Your task to perform on an android device: toggle sleep mode Image 0: 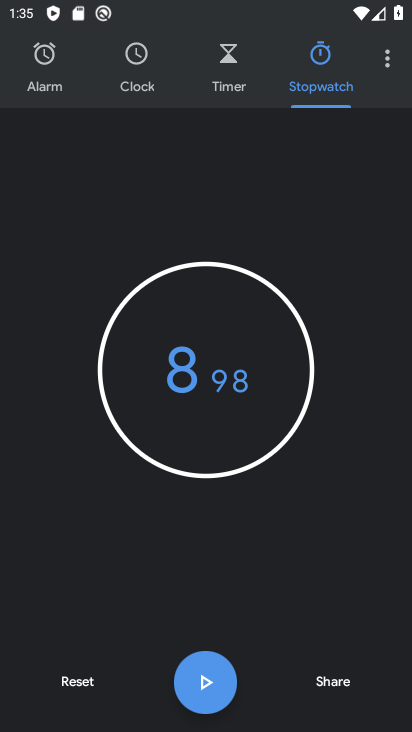
Step 0: press home button
Your task to perform on an android device: toggle sleep mode Image 1: 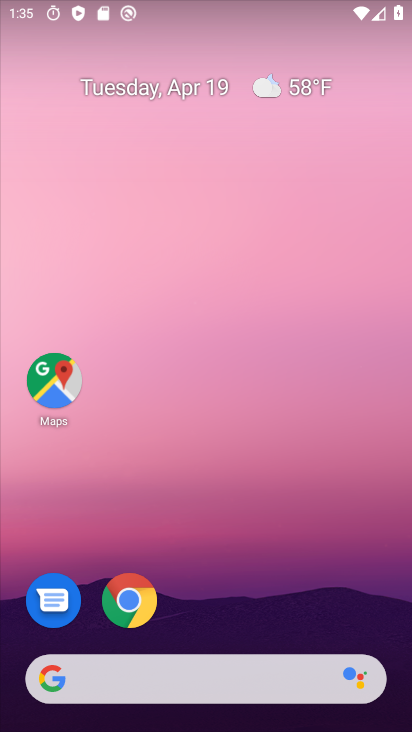
Step 1: drag from (233, 720) to (380, 219)
Your task to perform on an android device: toggle sleep mode Image 2: 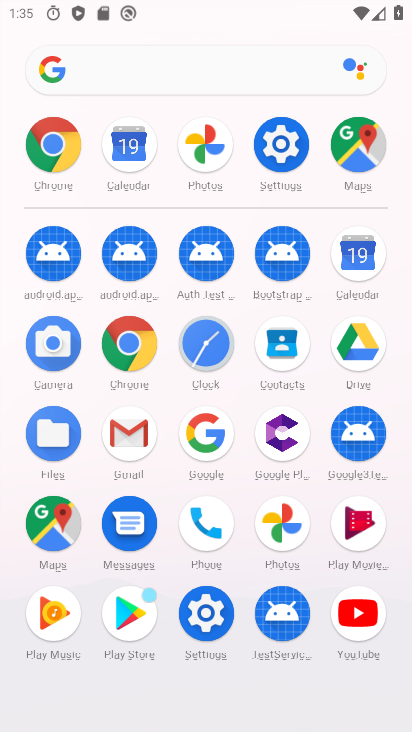
Step 2: click (279, 161)
Your task to perform on an android device: toggle sleep mode Image 3: 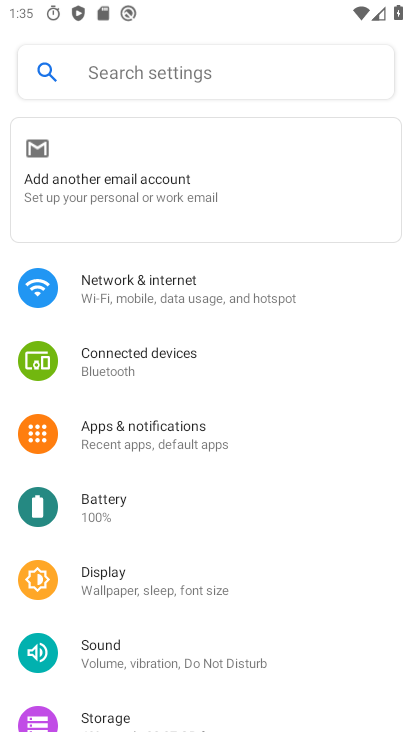
Step 3: click (185, 79)
Your task to perform on an android device: toggle sleep mode Image 4: 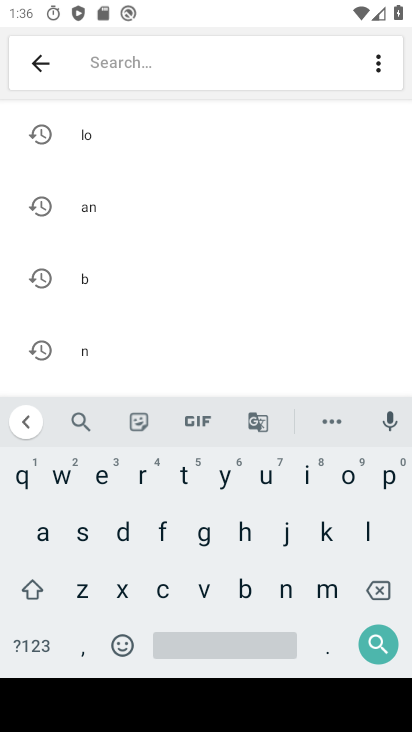
Step 4: click (82, 544)
Your task to perform on an android device: toggle sleep mode Image 5: 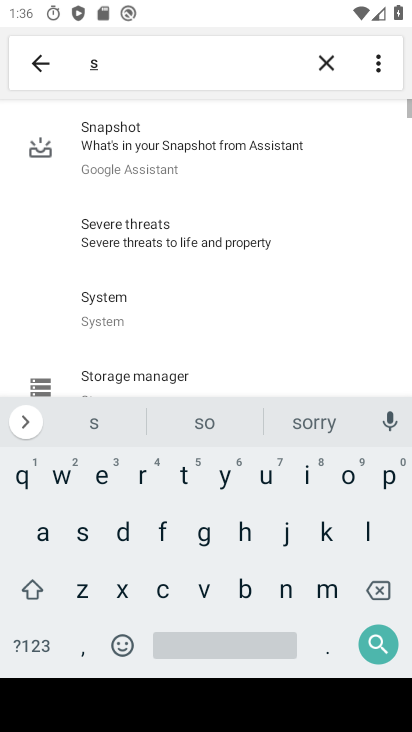
Step 5: click (363, 540)
Your task to perform on an android device: toggle sleep mode Image 6: 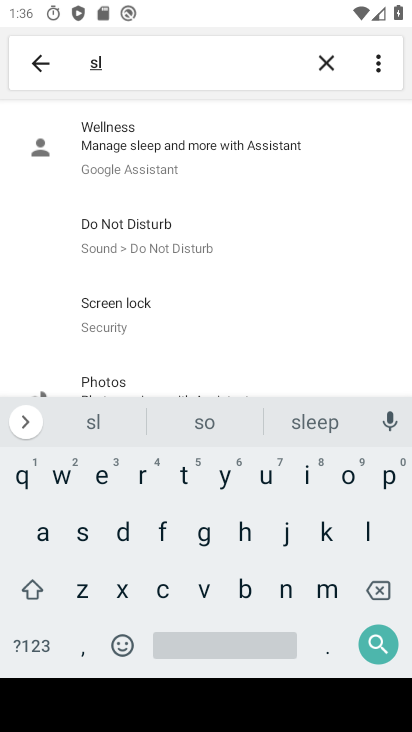
Step 6: click (156, 169)
Your task to perform on an android device: toggle sleep mode Image 7: 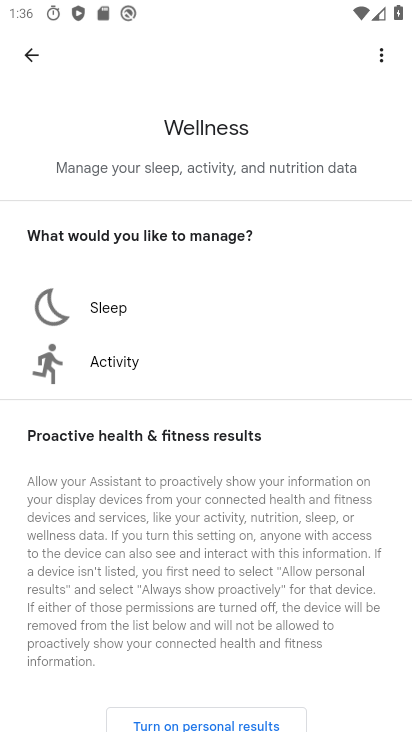
Step 7: click (112, 311)
Your task to perform on an android device: toggle sleep mode Image 8: 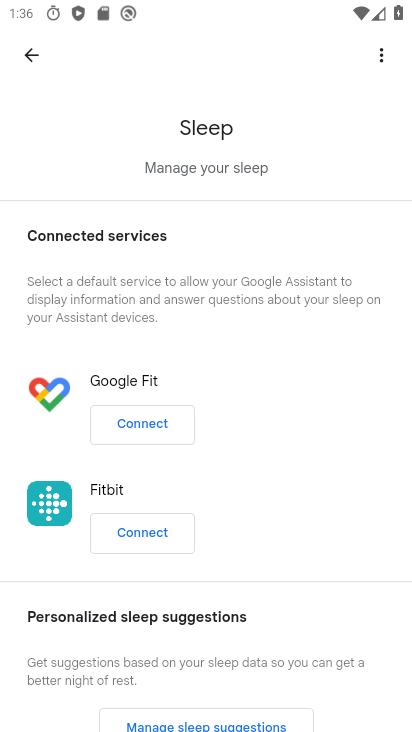
Step 8: task complete